Your task to perform on an android device: Go to calendar. Show me events next week Image 0: 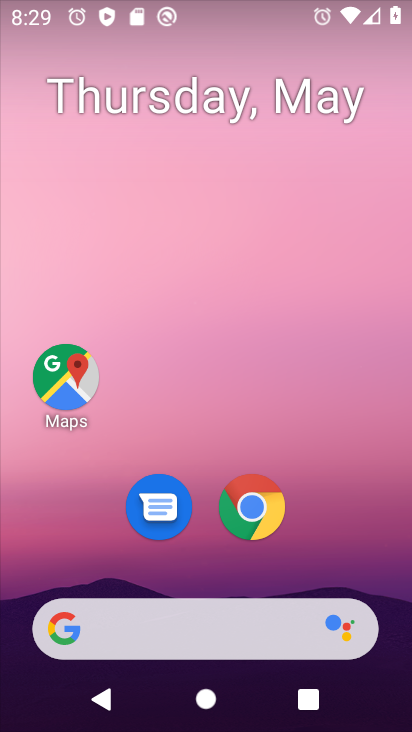
Step 0: drag from (211, 432) to (254, 111)
Your task to perform on an android device: Go to calendar. Show me events next week Image 1: 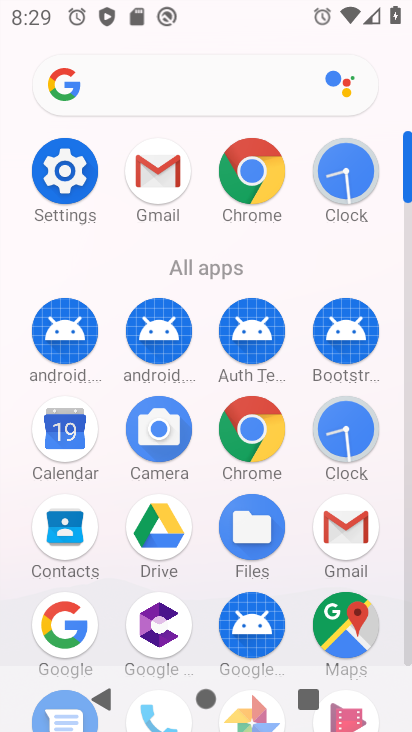
Step 1: click (71, 441)
Your task to perform on an android device: Go to calendar. Show me events next week Image 2: 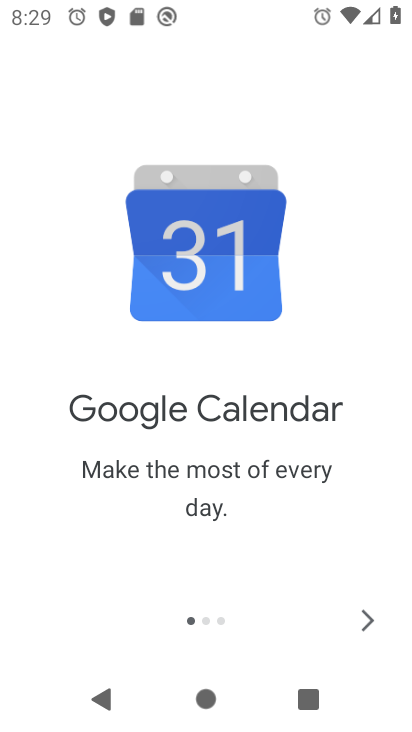
Step 2: click (370, 622)
Your task to perform on an android device: Go to calendar. Show me events next week Image 3: 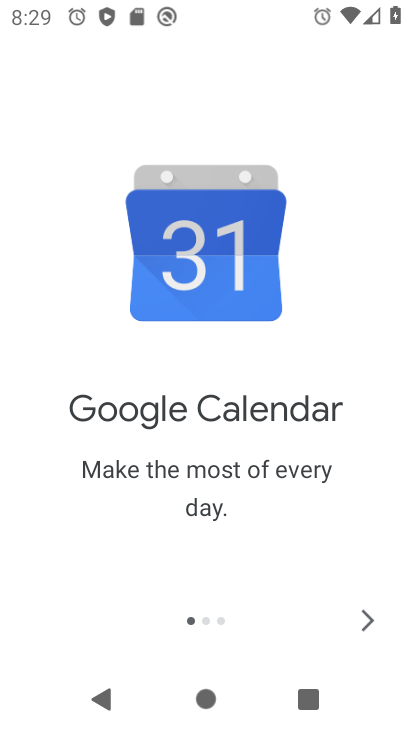
Step 3: click (370, 622)
Your task to perform on an android device: Go to calendar. Show me events next week Image 4: 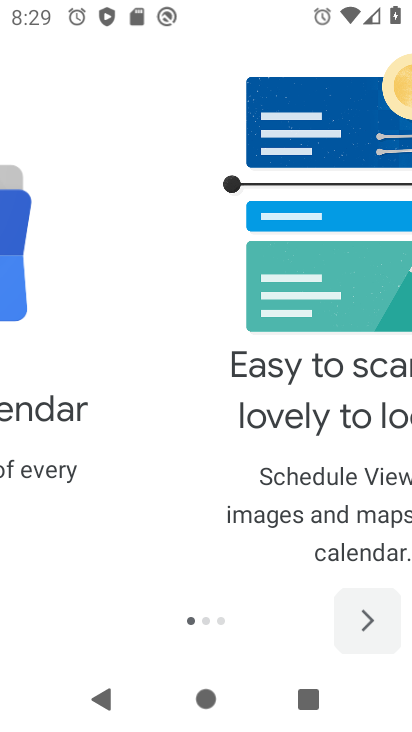
Step 4: click (370, 622)
Your task to perform on an android device: Go to calendar. Show me events next week Image 5: 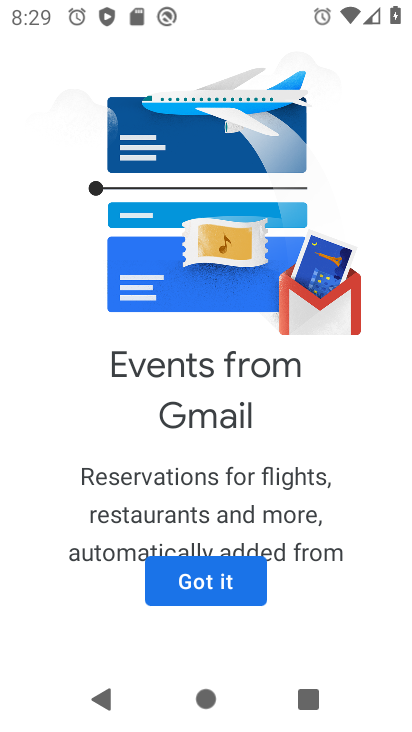
Step 5: click (229, 584)
Your task to perform on an android device: Go to calendar. Show me events next week Image 6: 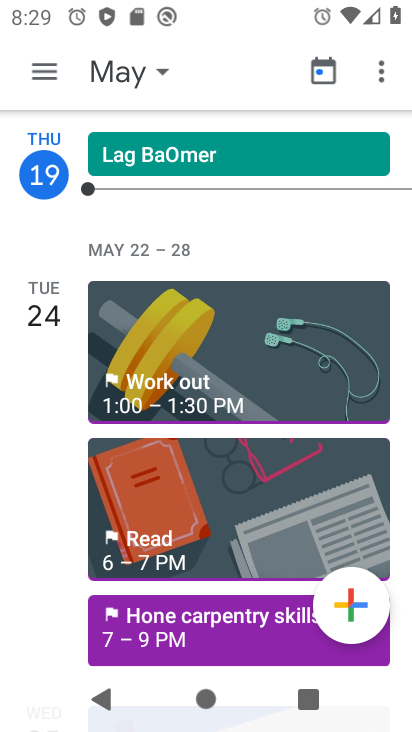
Step 6: click (46, 73)
Your task to perform on an android device: Go to calendar. Show me events next week Image 7: 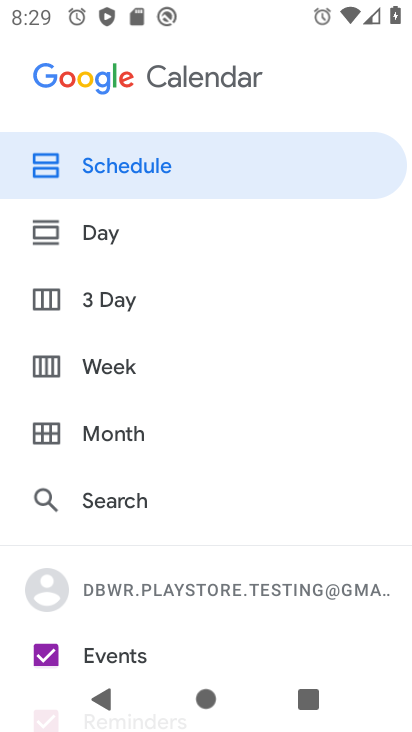
Step 7: drag from (79, 556) to (121, 210)
Your task to perform on an android device: Go to calendar. Show me events next week Image 8: 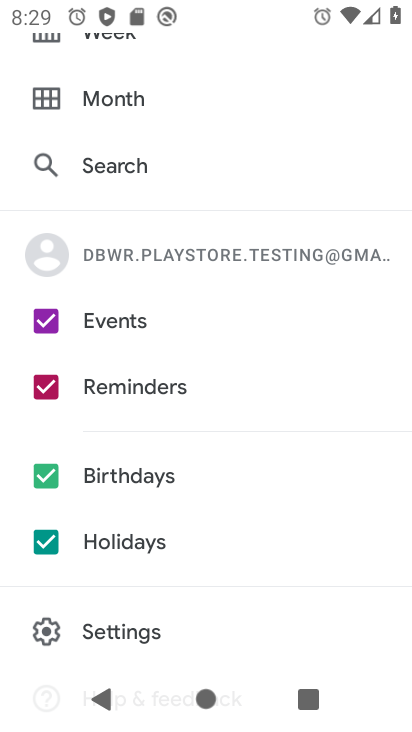
Step 8: click (44, 472)
Your task to perform on an android device: Go to calendar. Show me events next week Image 9: 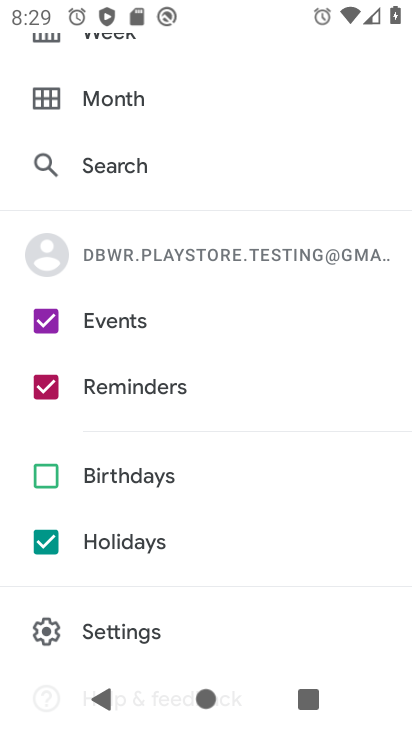
Step 9: click (45, 543)
Your task to perform on an android device: Go to calendar. Show me events next week Image 10: 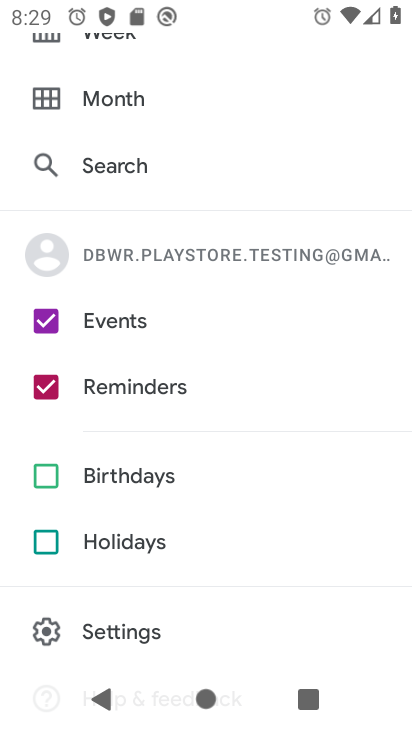
Step 10: click (43, 390)
Your task to perform on an android device: Go to calendar. Show me events next week Image 11: 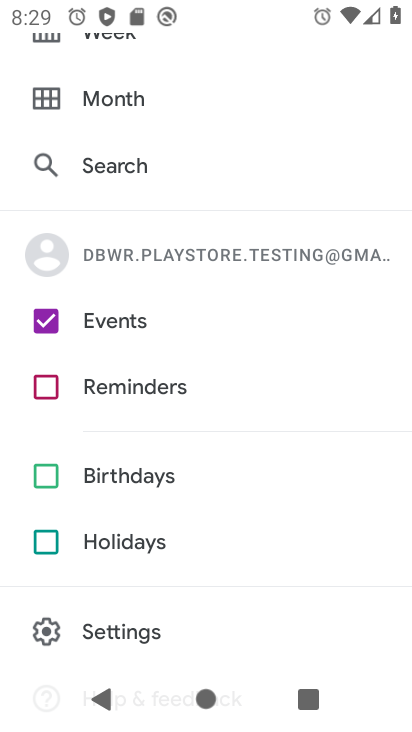
Step 11: click (120, 36)
Your task to perform on an android device: Go to calendar. Show me events next week Image 12: 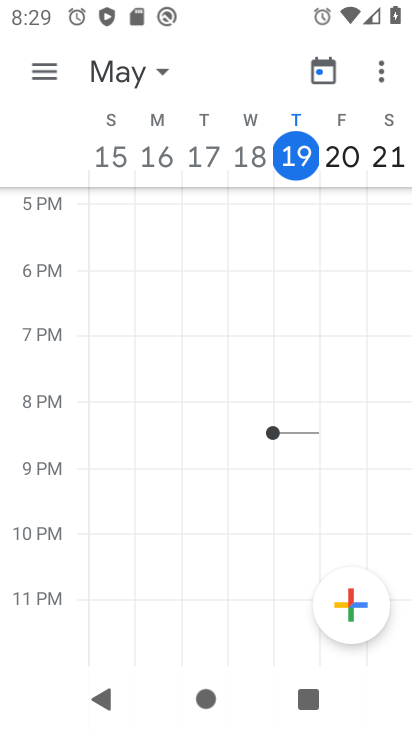
Step 12: task complete